Your task to perform on an android device: turn off location Image 0: 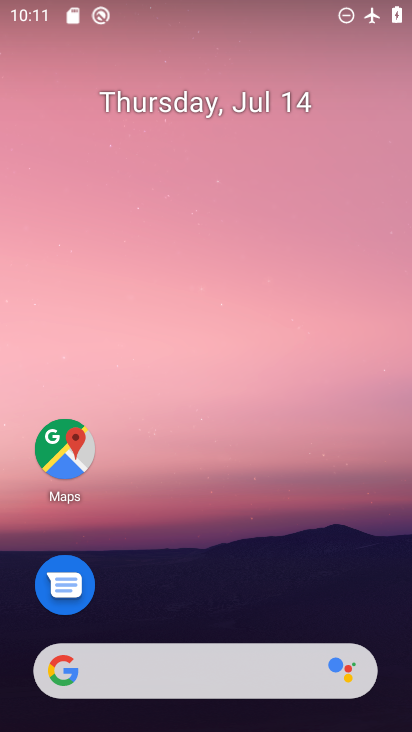
Step 0: drag from (206, 617) to (94, 15)
Your task to perform on an android device: turn off location Image 1: 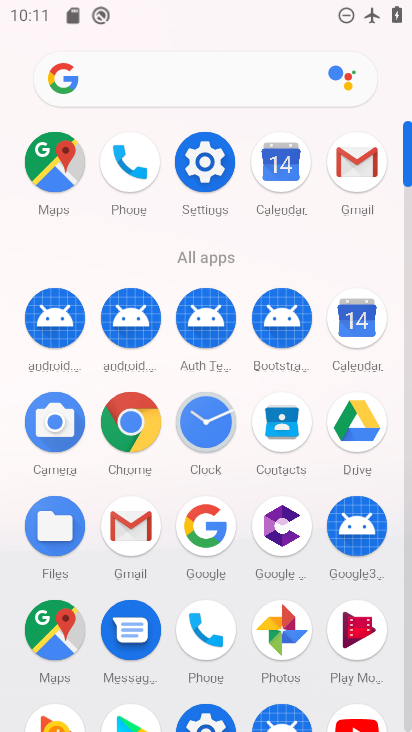
Step 1: click (215, 173)
Your task to perform on an android device: turn off location Image 2: 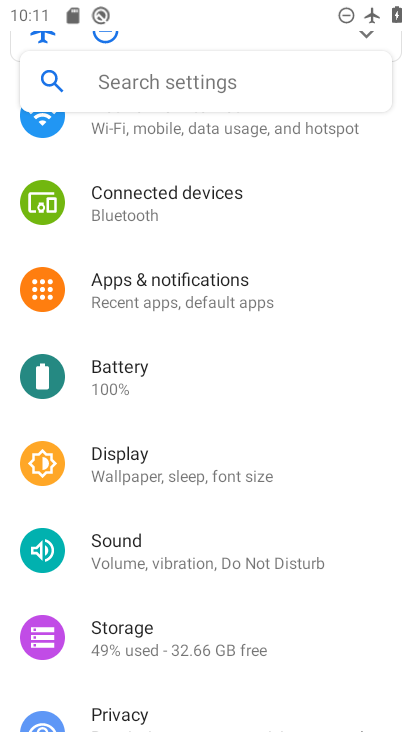
Step 2: drag from (221, 606) to (89, 198)
Your task to perform on an android device: turn off location Image 3: 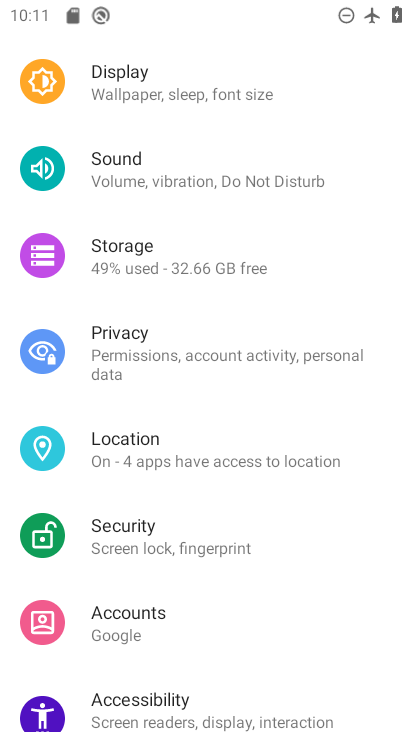
Step 3: click (182, 466)
Your task to perform on an android device: turn off location Image 4: 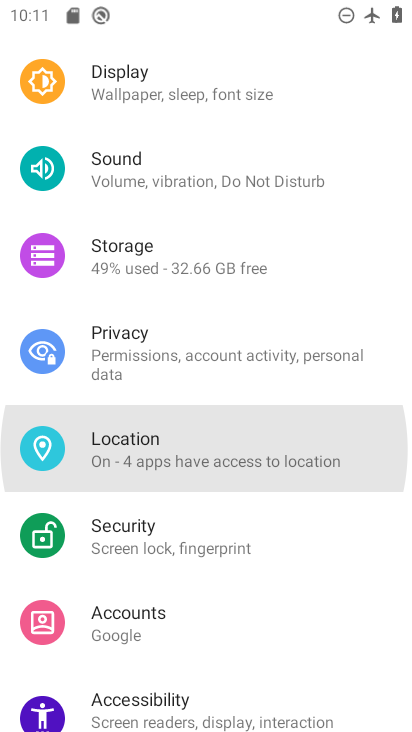
Step 4: click (182, 466)
Your task to perform on an android device: turn off location Image 5: 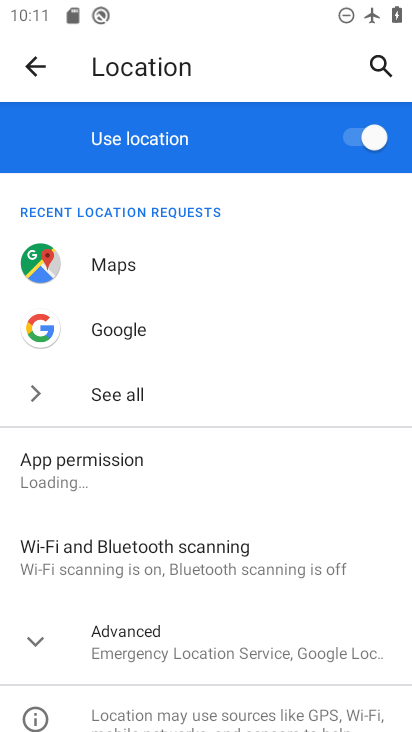
Step 5: click (352, 144)
Your task to perform on an android device: turn off location Image 6: 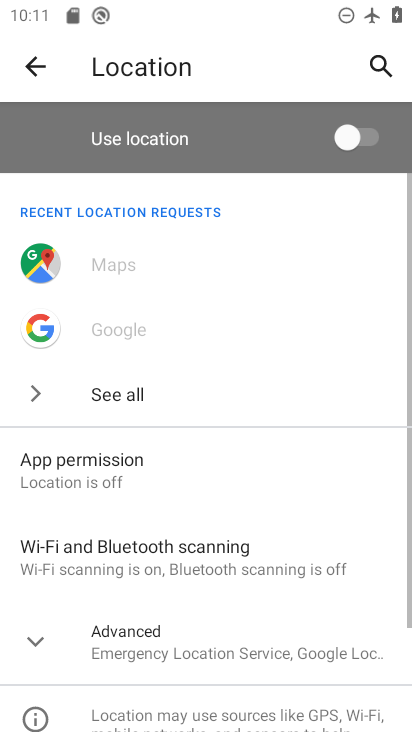
Step 6: task complete